Your task to perform on an android device: Empty the shopping cart on newegg. Image 0: 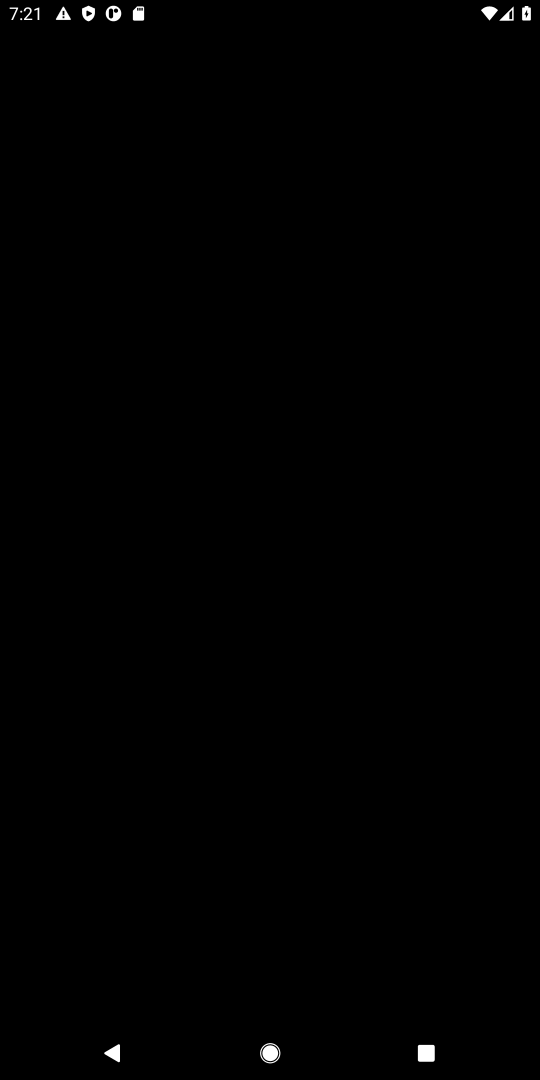
Step 0: press home button
Your task to perform on an android device: Empty the shopping cart on newegg. Image 1: 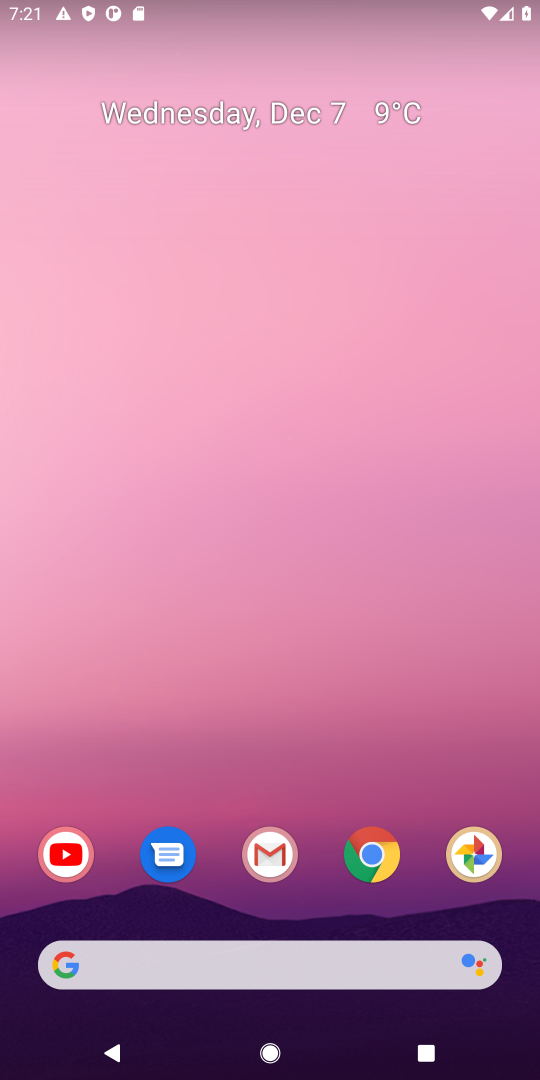
Step 1: click (262, 967)
Your task to perform on an android device: Empty the shopping cart on newegg. Image 2: 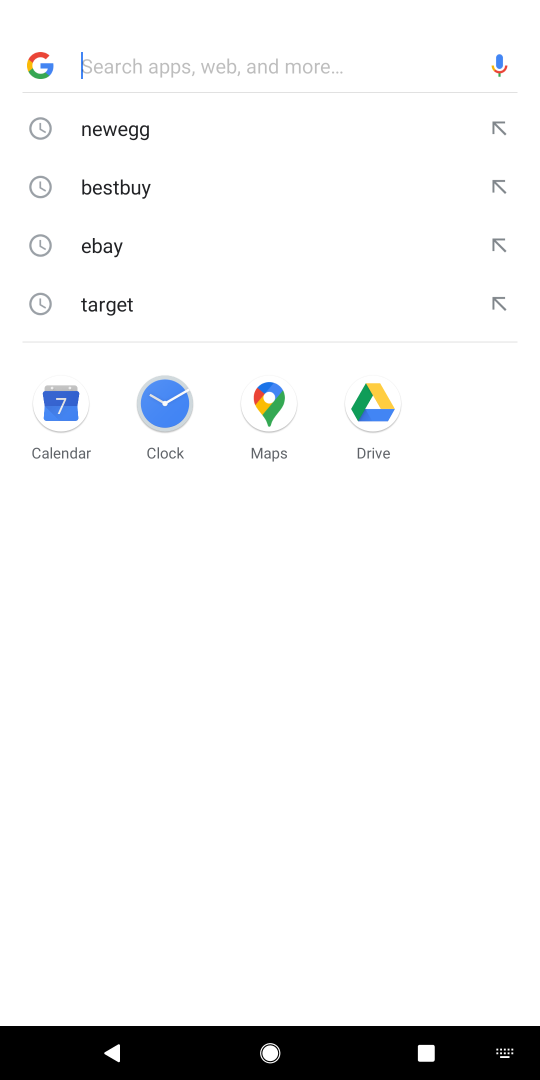
Step 2: click (168, 137)
Your task to perform on an android device: Empty the shopping cart on newegg. Image 3: 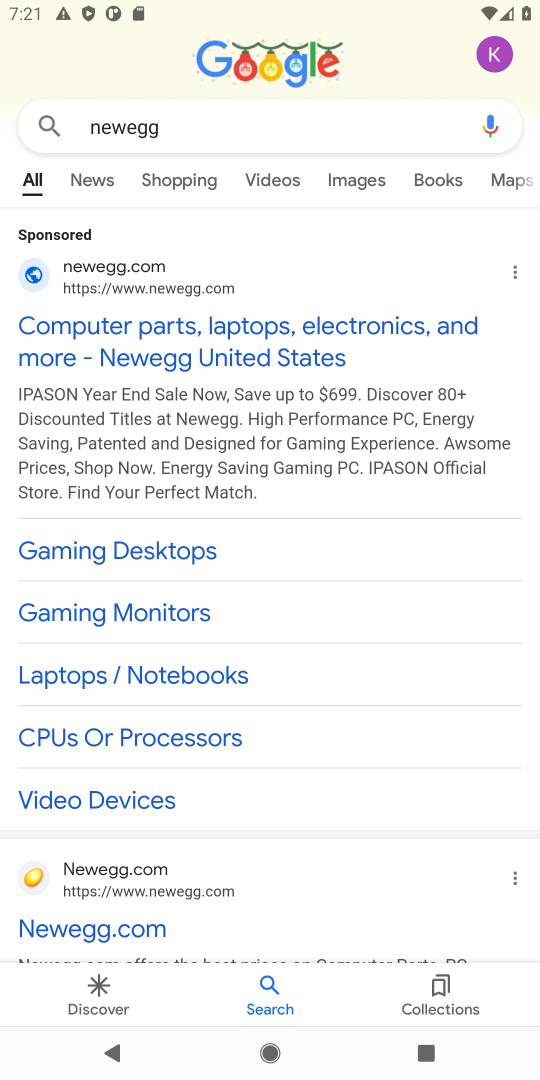
Step 3: click (165, 315)
Your task to perform on an android device: Empty the shopping cart on newegg. Image 4: 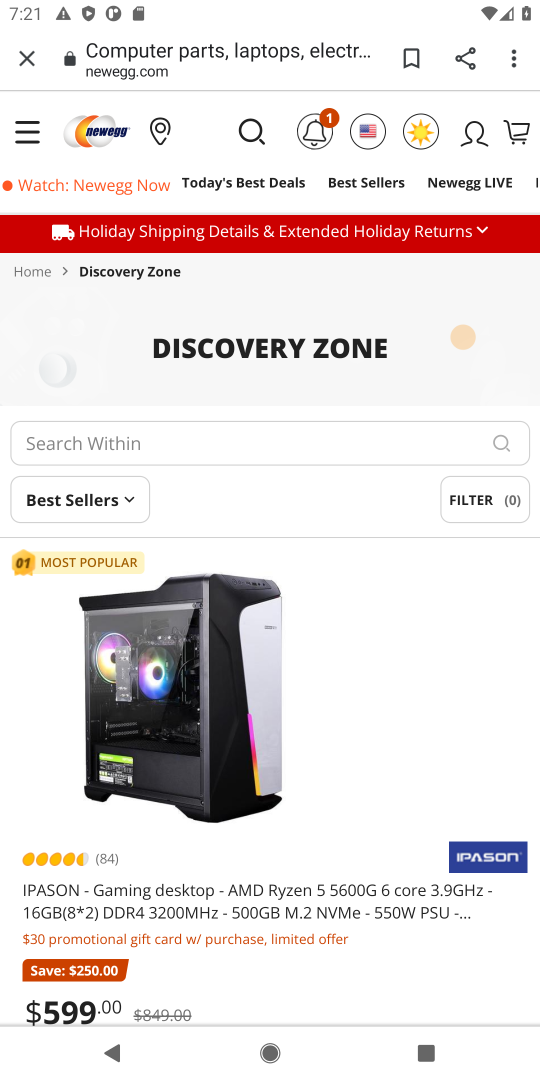
Step 4: click (517, 131)
Your task to perform on an android device: Empty the shopping cart on newegg. Image 5: 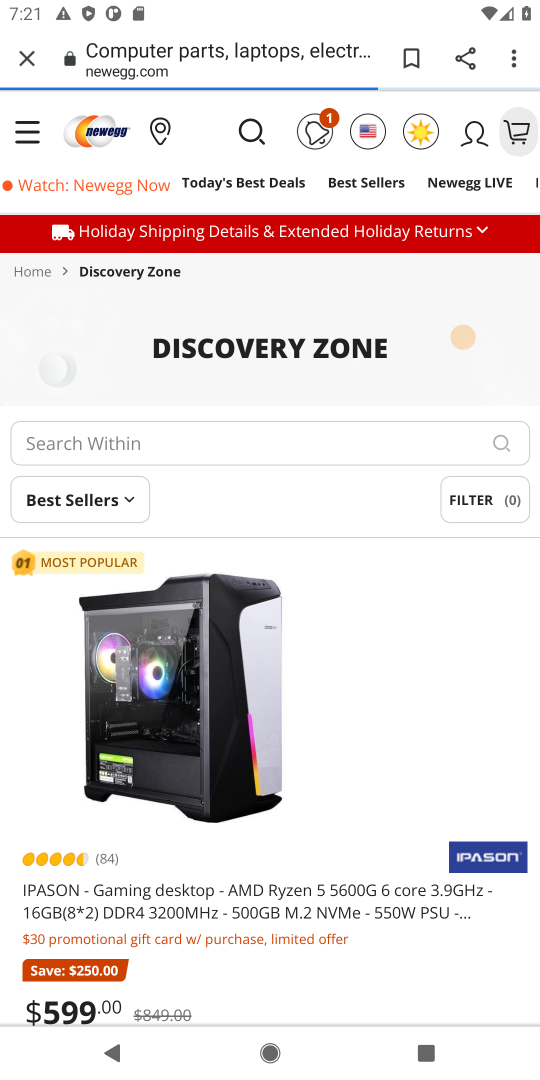
Step 5: task complete